Your task to perform on an android device: What's the weather today? Image 0: 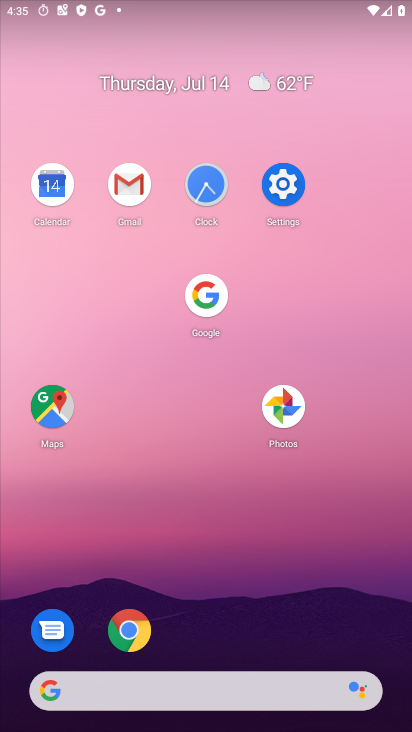
Step 0: click (138, 633)
Your task to perform on an android device: What's the weather today? Image 1: 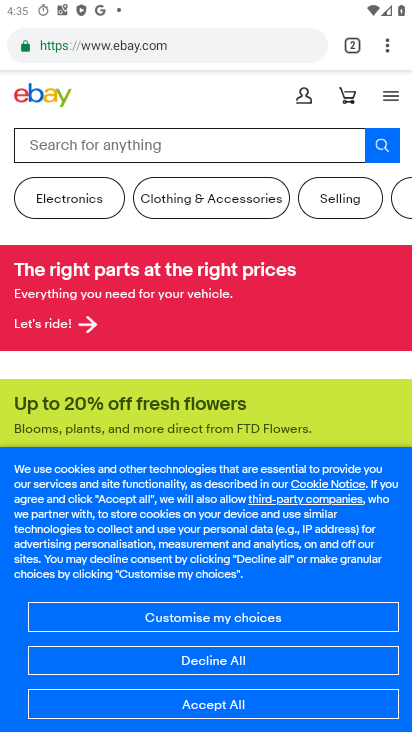
Step 1: click (347, 38)
Your task to perform on an android device: What's the weather today? Image 2: 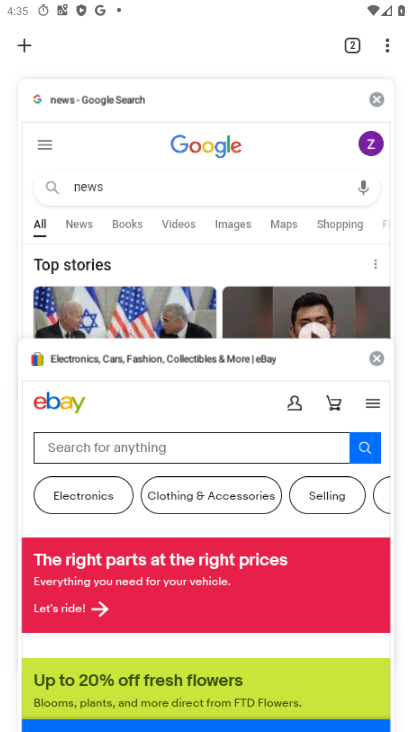
Step 2: click (28, 46)
Your task to perform on an android device: What's the weather today? Image 3: 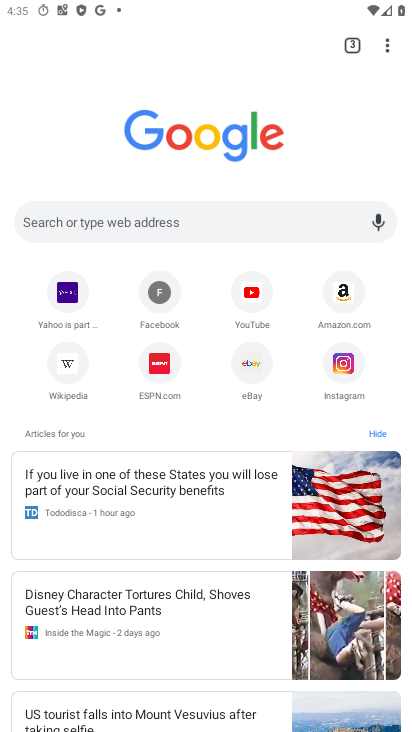
Step 3: click (244, 211)
Your task to perform on an android device: What's the weather today? Image 4: 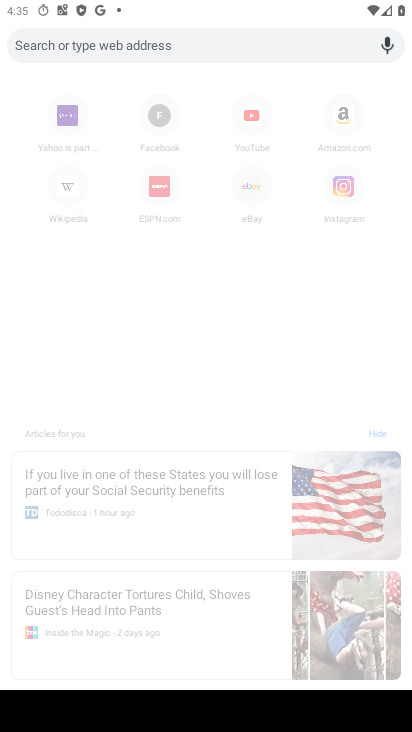
Step 4: type "weather"
Your task to perform on an android device: What's the weather today? Image 5: 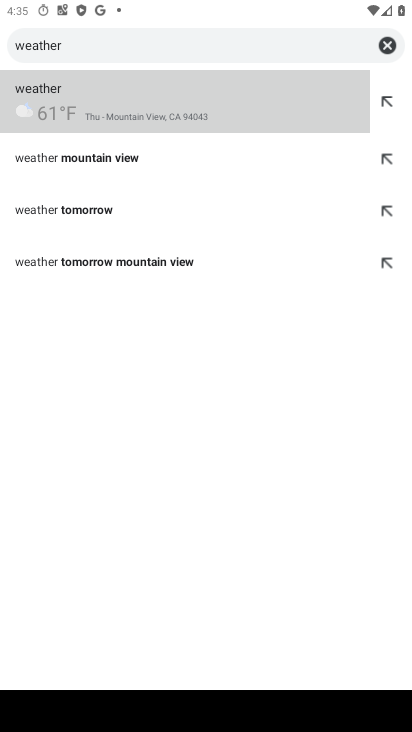
Step 5: click (139, 92)
Your task to perform on an android device: What's the weather today? Image 6: 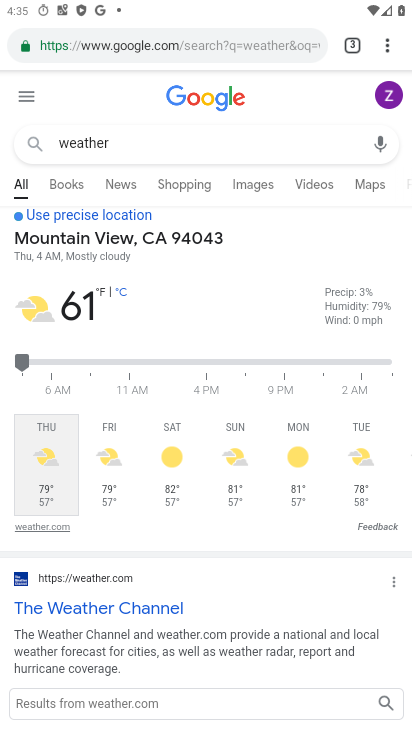
Step 6: task complete